Your task to perform on an android device: Open Google Maps Image 0: 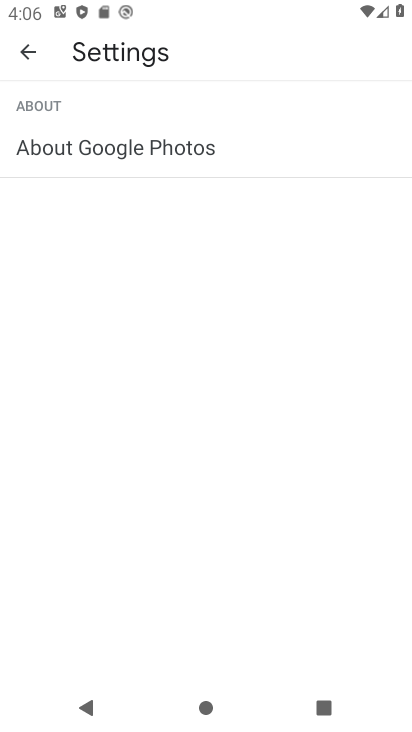
Step 0: press back button
Your task to perform on an android device: Open Google Maps Image 1: 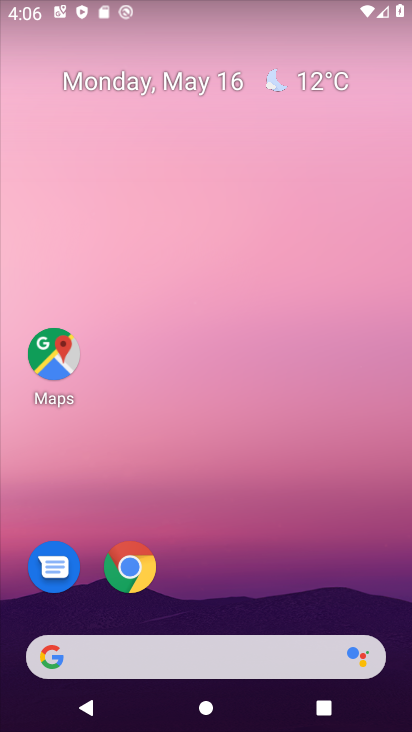
Step 1: click (53, 352)
Your task to perform on an android device: Open Google Maps Image 2: 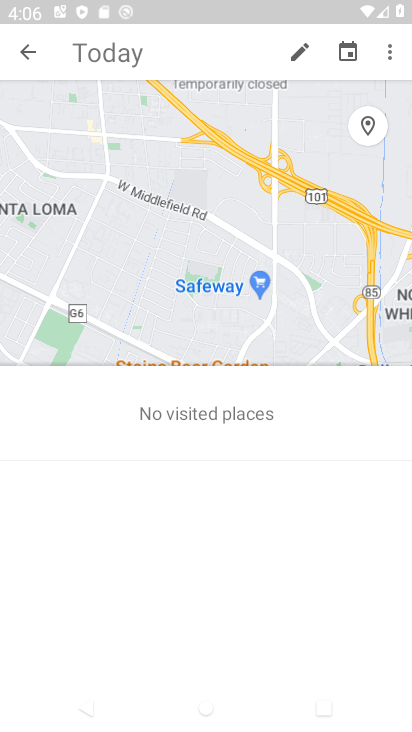
Step 2: click (49, 55)
Your task to perform on an android device: Open Google Maps Image 3: 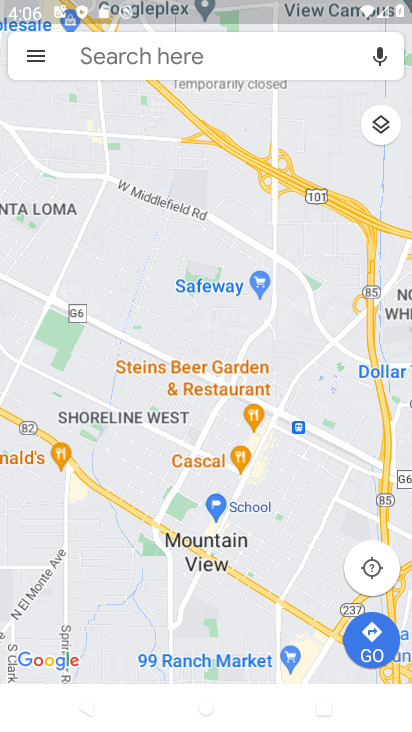
Step 3: click (272, 59)
Your task to perform on an android device: Open Google Maps Image 4: 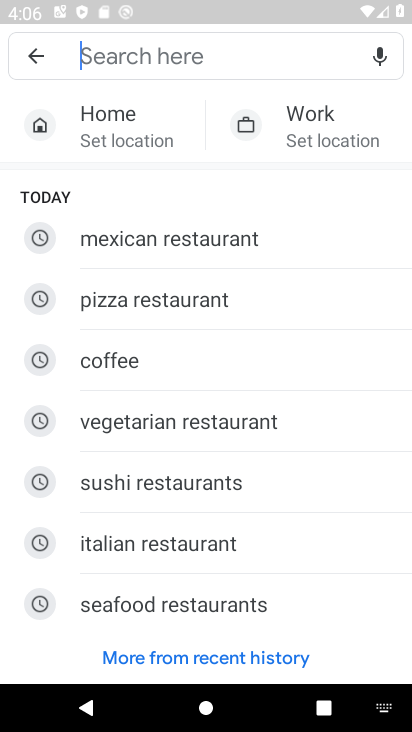
Step 4: click (26, 44)
Your task to perform on an android device: Open Google Maps Image 5: 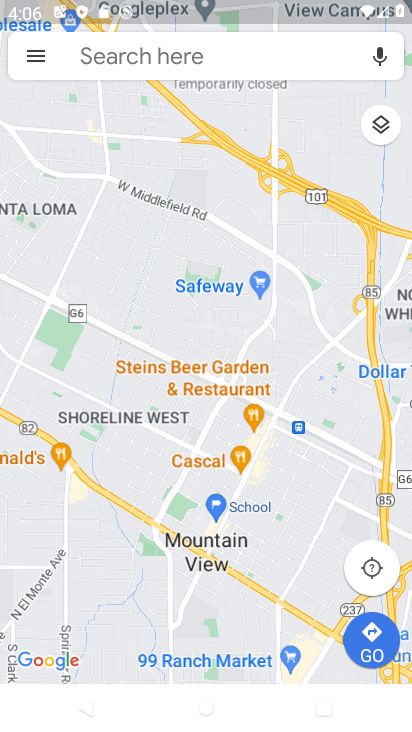
Step 5: task complete